Your task to perform on an android device: Open the stopwatch Image 0: 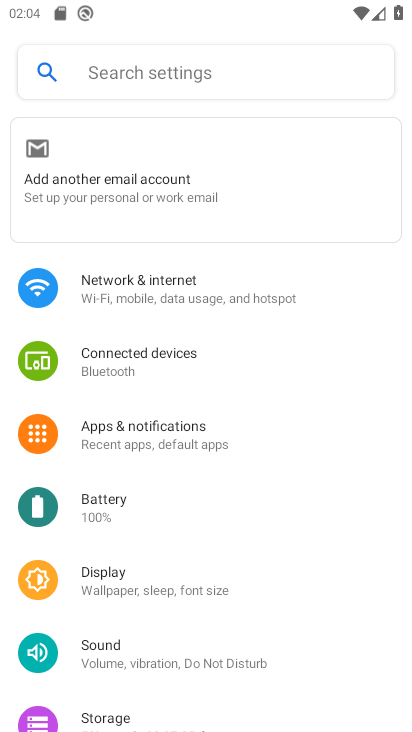
Step 0: press home button
Your task to perform on an android device: Open the stopwatch Image 1: 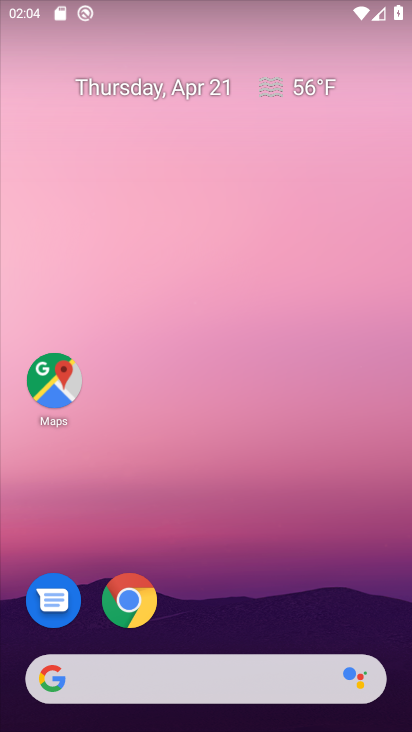
Step 1: drag from (254, 585) to (263, 144)
Your task to perform on an android device: Open the stopwatch Image 2: 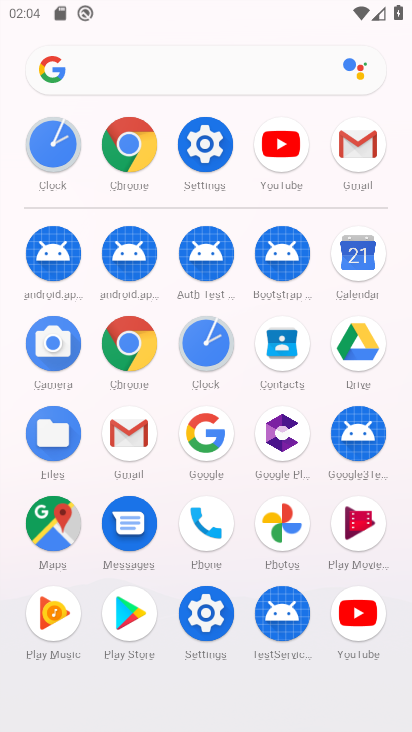
Step 2: click (61, 143)
Your task to perform on an android device: Open the stopwatch Image 3: 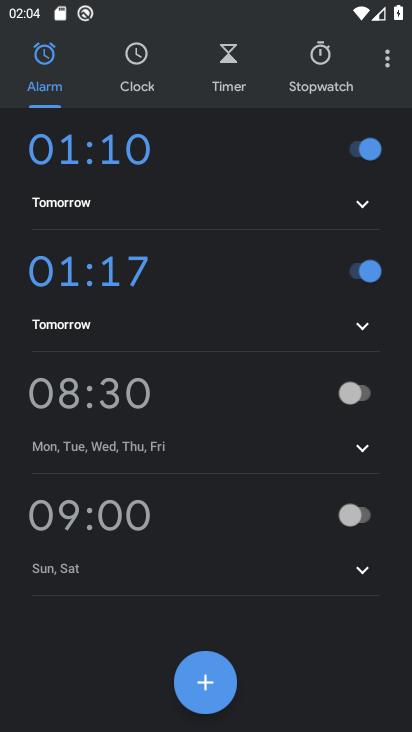
Step 3: click (324, 48)
Your task to perform on an android device: Open the stopwatch Image 4: 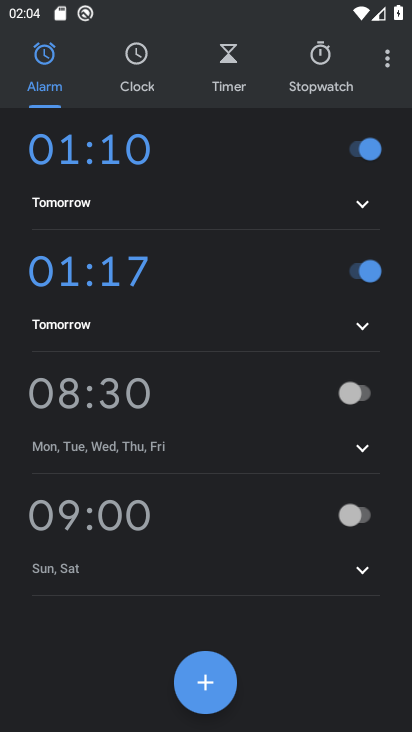
Step 4: click (324, 59)
Your task to perform on an android device: Open the stopwatch Image 5: 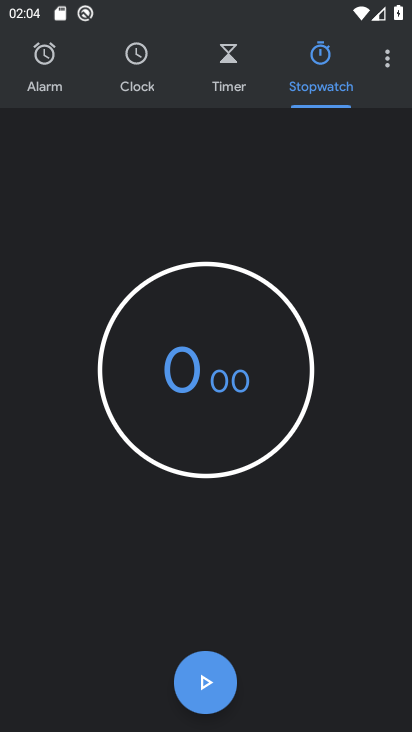
Step 5: click (217, 378)
Your task to perform on an android device: Open the stopwatch Image 6: 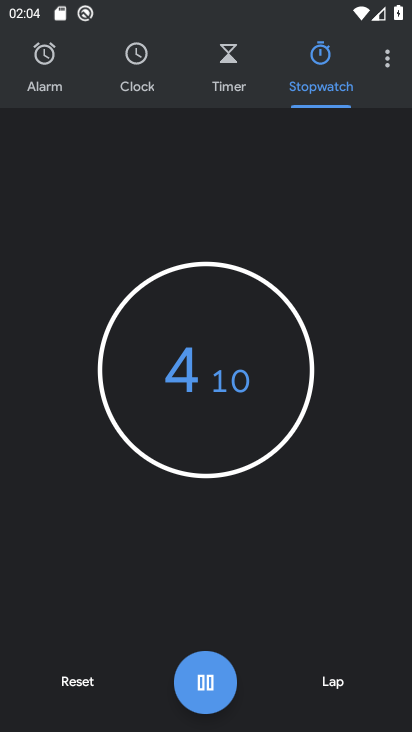
Step 6: click (212, 680)
Your task to perform on an android device: Open the stopwatch Image 7: 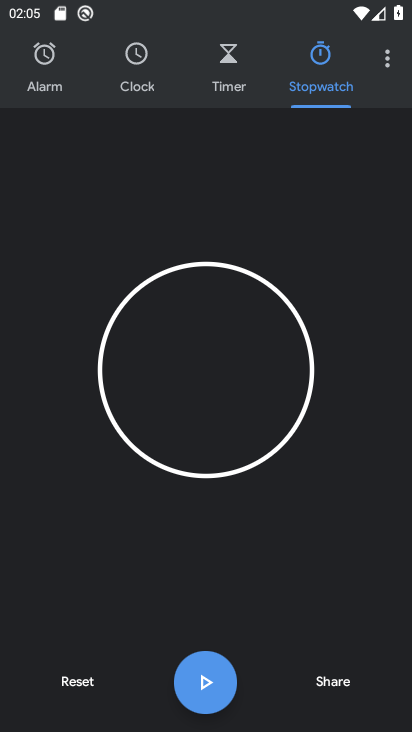
Step 7: task complete